Your task to perform on an android device: toggle notifications settings in the gmail app Image 0: 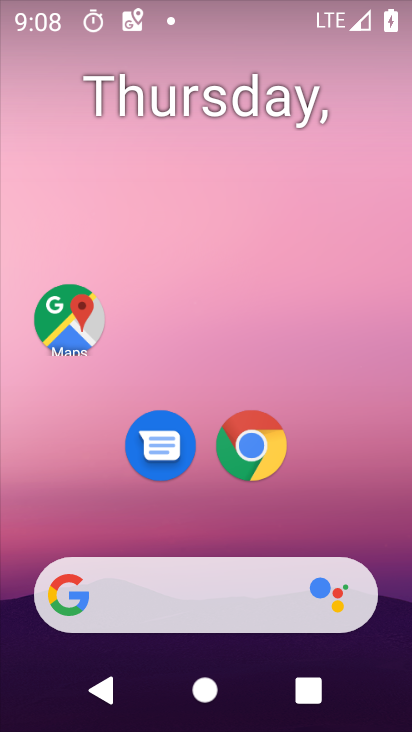
Step 0: drag from (226, 466) to (266, 227)
Your task to perform on an android device: toggle notifications settings in the gmail app Image 1: 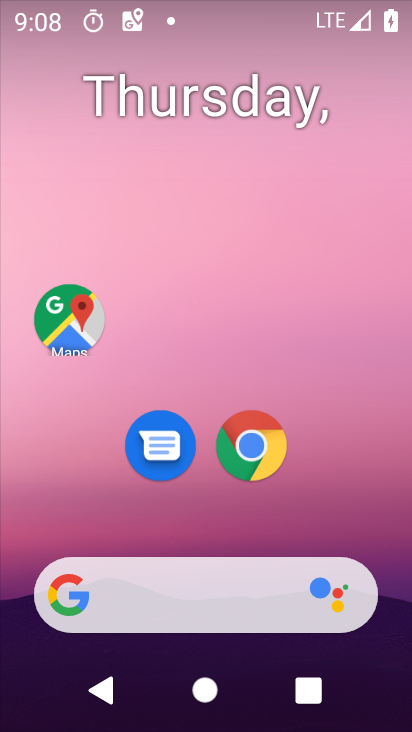
Step 1: drag from (214, 555) to (248, 175)
Your task to perform on an android device: toggle notifications settings in the gmail app Image 2: 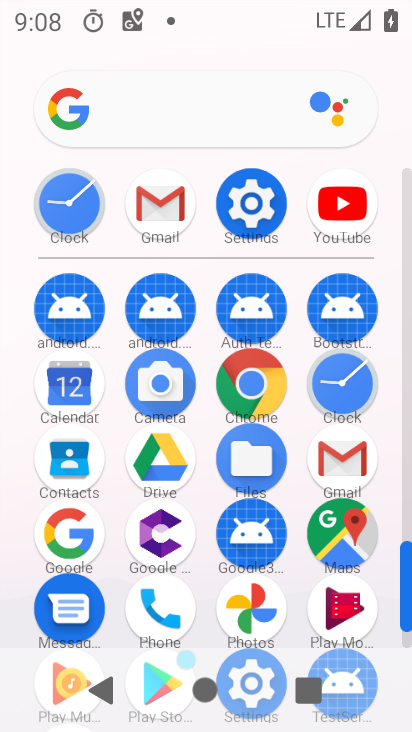
Step 2: click (339, 466)
Your task to perform on an android device: toggle notifications settings in the gmail app Image 3: 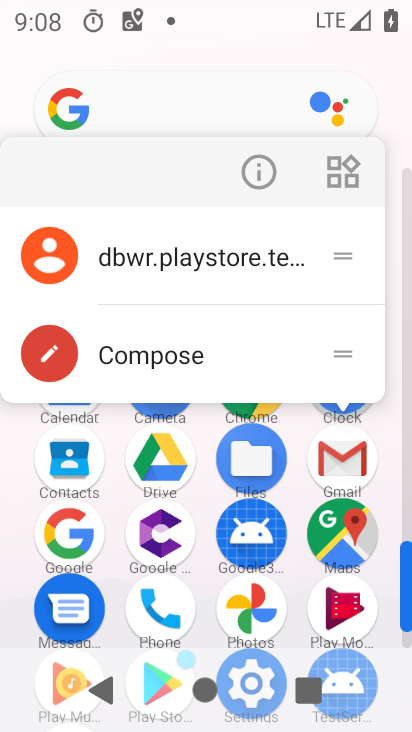
Step 3: click (259, 183)
Your task to perform on an android device: toggle notifications settings in the gmail app Image 4: 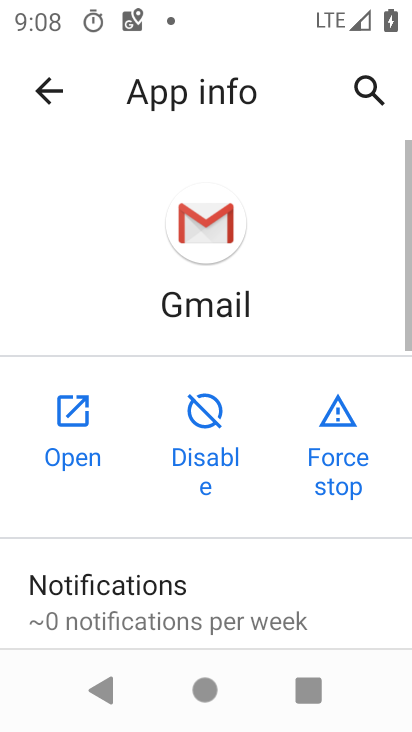
Step 4: click (77, 417)
Your task to perform on an android device: toggle notifications settings in the gmail app Image 5: 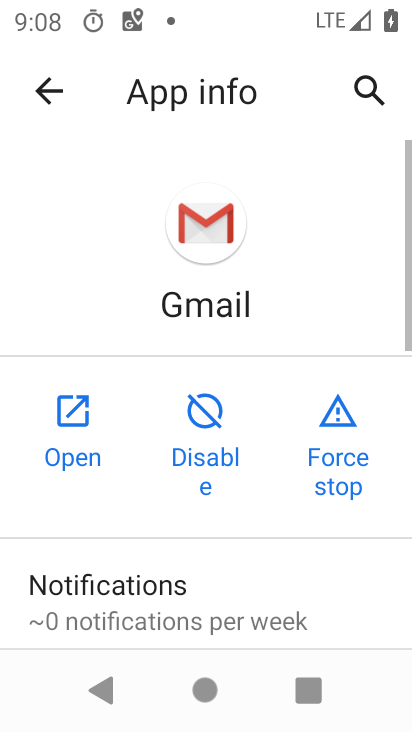
Step 5: click (77, 417)
Your task to perform on an android device: toggle notifications settings in the gmail app Image 6: 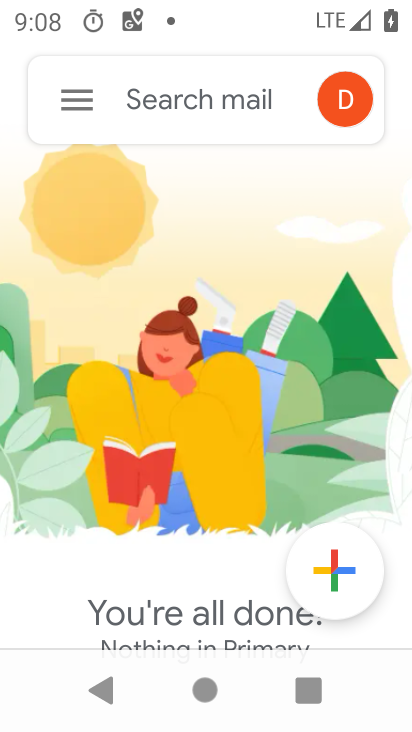
Step 6: click (86, 114)
Your task to perform on an android device: toggle notifications settings in the gmail app Image 7: 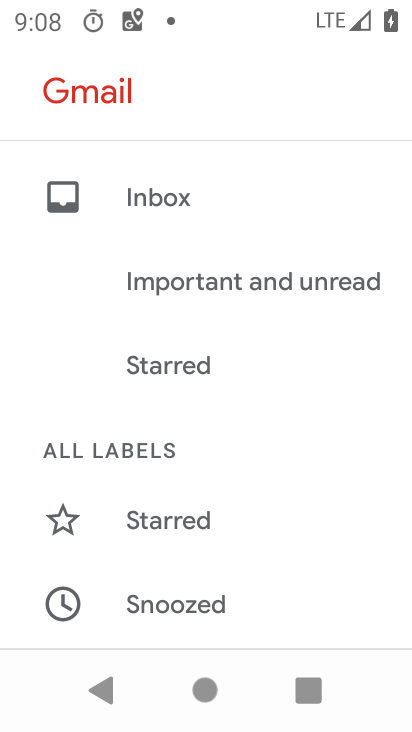
Step 7: drag from (252, 609) to (239, 234)
Your task to perform on an android device: toggle notifications settings in the gmail app Image 8: 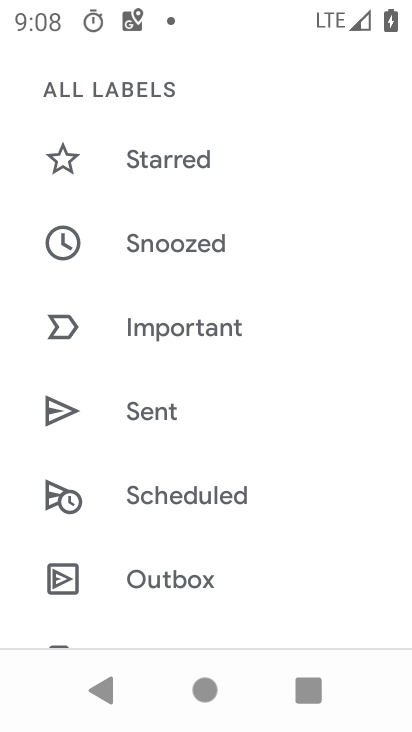
Step 8: drag from (255, 596) to (325, 207)
Your task to perform on an android device: toggle notifications settings in the gmail app Image 9: 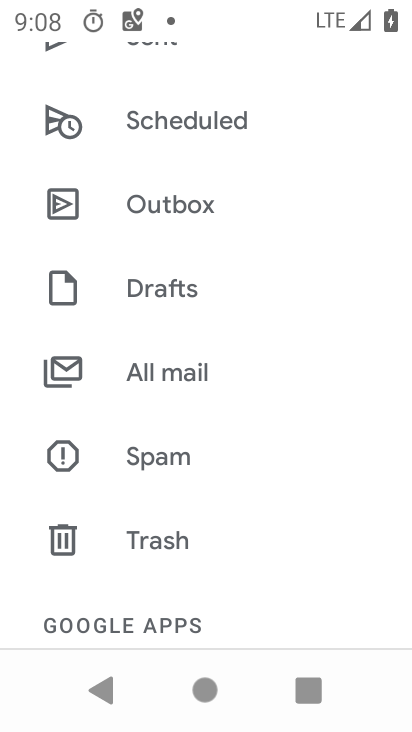
Step 9: drag from (190, 558) to (291, 86)
Your task to perform on an android device: toggle notifications settings in the gmail app Image 10: 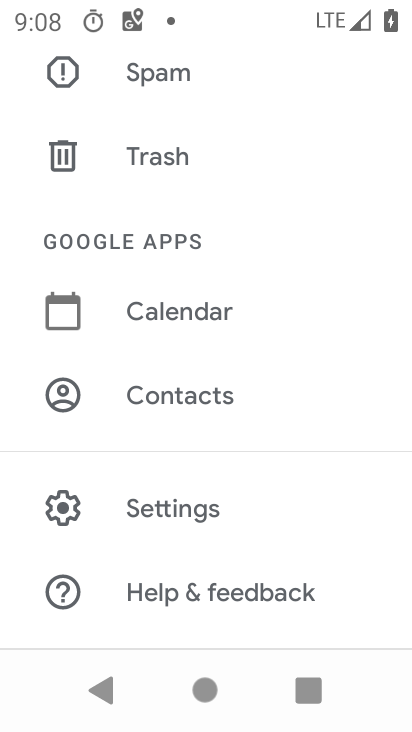
Step 10: click (175, 511)
Your task to perform on an android device: toggle notifications settings in the gmail app Image 11: 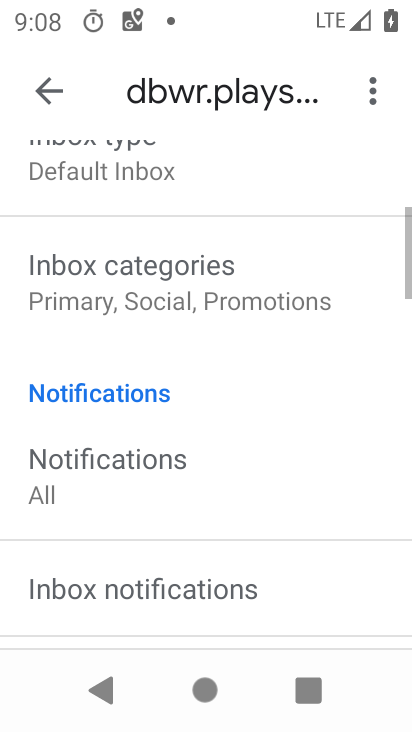
Step 11: drag from (278, 612) to (383, 129)
Your task to perform on an android device: toggle notifications settings in the gmail app Image 12: 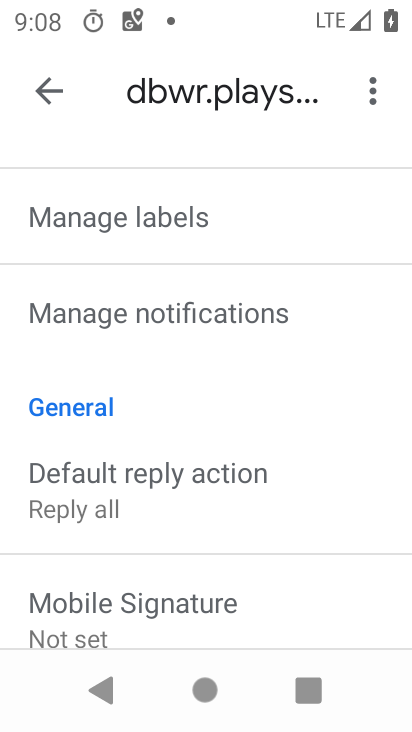
Step 12: drag from (194, 497) to (325, 124)
Your task to perform on an android device: toggle notifications settings in the gmail app Image 13: 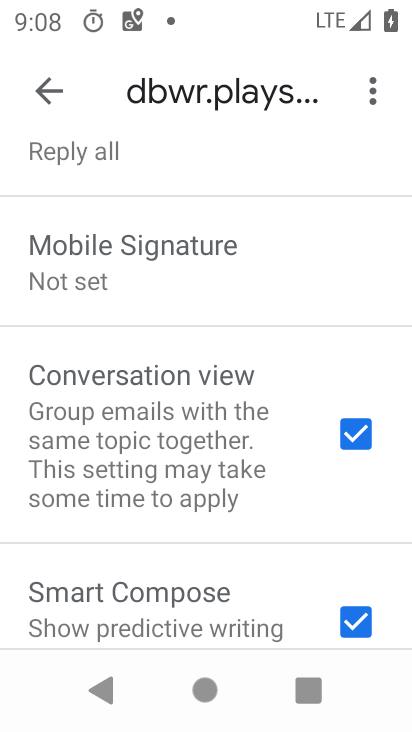
Step 13: drag from (180, 513) to (317, 213)
Your task to perform on an android device: toggle notifications settings in the gmail app Image 14: 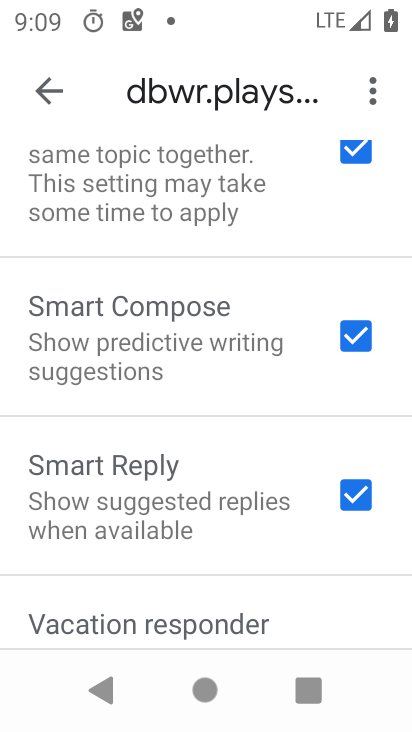
Step 14: drag from (230, 585) to (319, 132)
Your task to perform on an android device: toggle notifications settings in the gmail app Image 15: 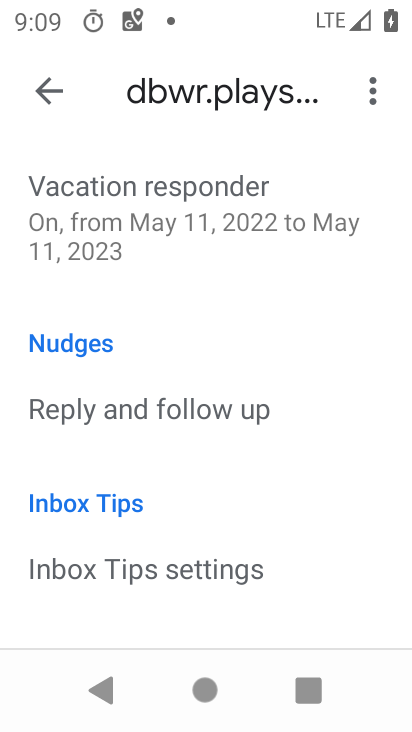
Step 15: drag from (262, 192) to (266, 703)
Your task to perform on an android device: toggle notifications settings in the gmail app Image 16: 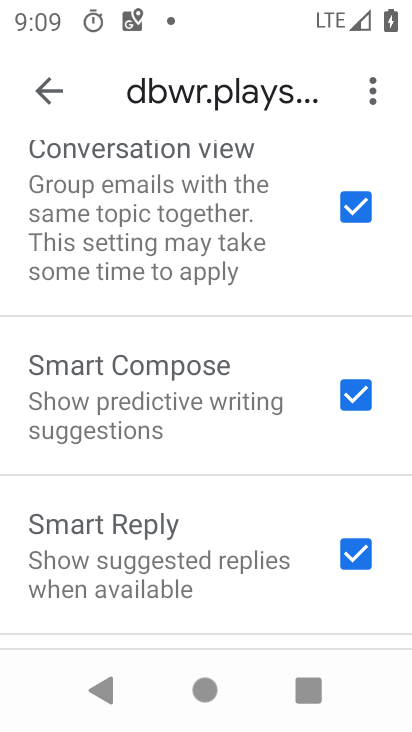
Step 16: drag from (225, 219) to (276, 630)
Your task to perform on an android device: toggle notifications settings in the gmail app Image 17: 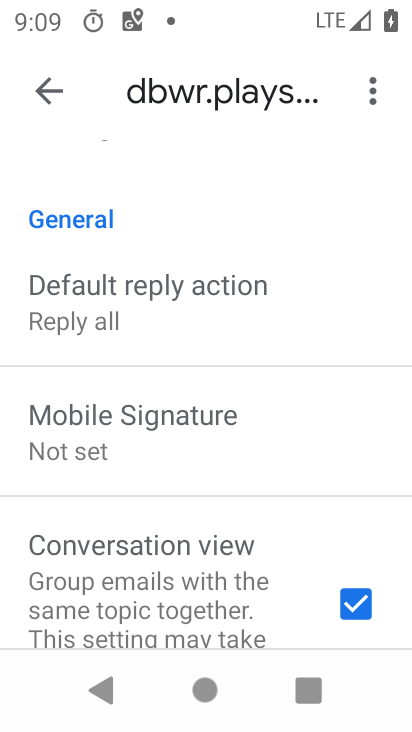
Step 17: drag from (235, 250) to (269, 587)
Your task to perform on an android device: toggle notifications settings in the gmail app Image 18: 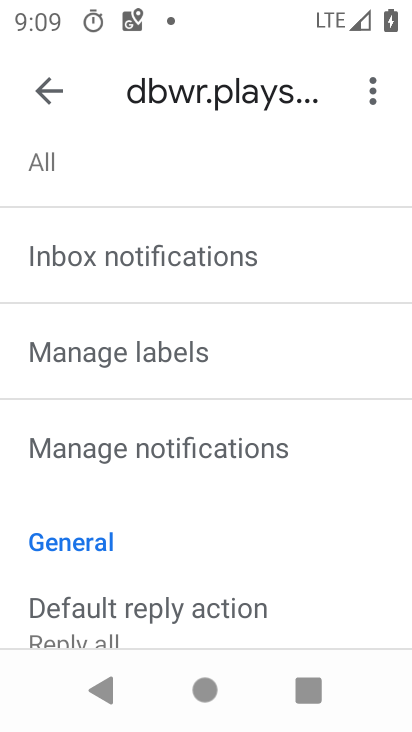
Step 18: click (182, 436)
Your task to perform on an android device: toggle notifications settings in the gmail app Image 19: 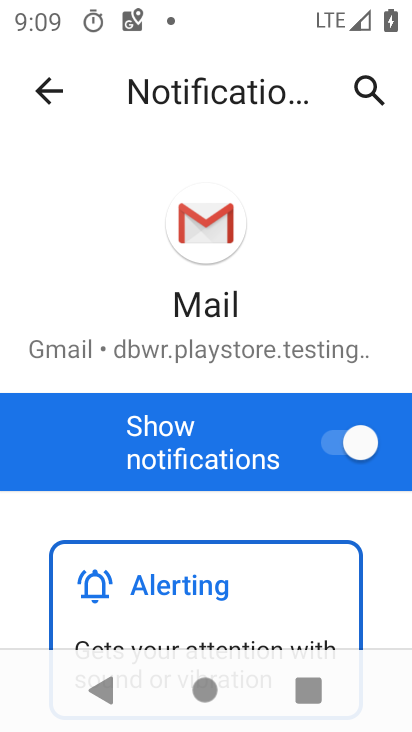
Step 19: drag from (238, 602) to (330, 195)
Your task to perform on an android device: toggle notifications settings in the gmail app Image 20: 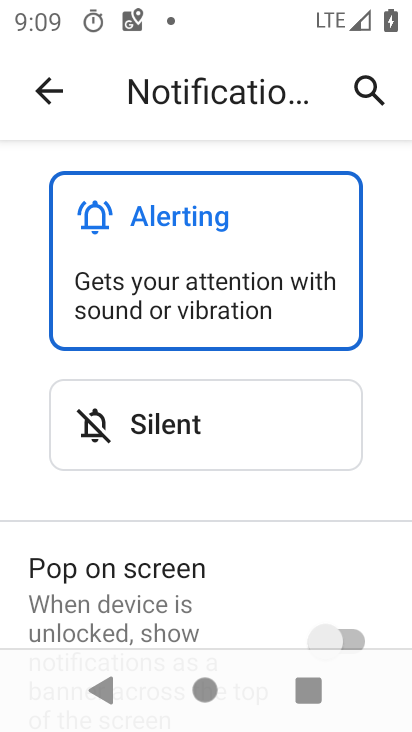
Step 20: drag from (283, 317) to (275, 636)
Your task to perform on an android device: toggle notifications settings in the gmail app Image 21: 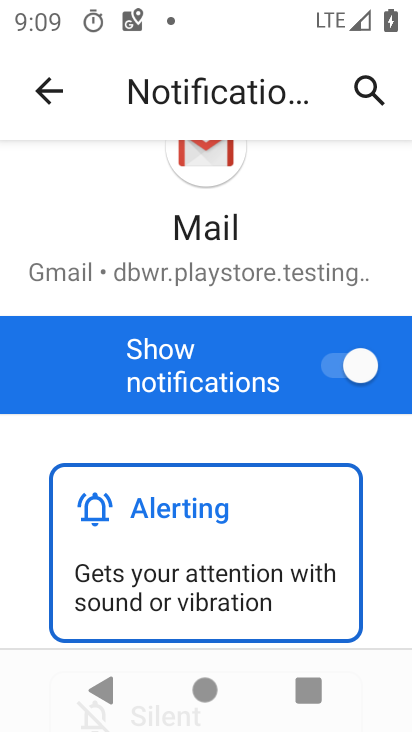
Step 21: drag from (275, 600) to (327, 274)
Your task to perform on an android device: toggle notifications settings in the gmail app Image 22: 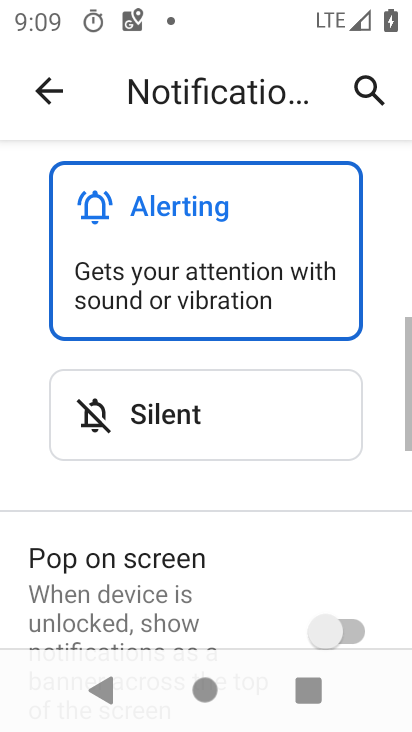
Step 22: drag from (330, 260) to (327, 653)
Your task to perform on an android device: toggle notifications settings in the gmail app Image 23: 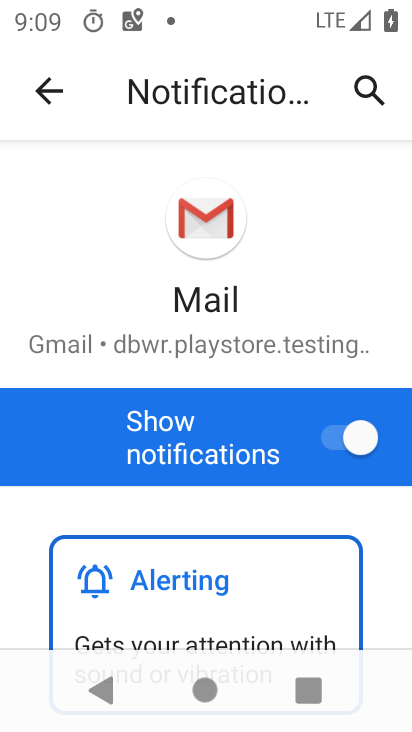
Step 23: drag from (233, 597) to (300, 306)
Your task to perform on an android device: toggle notifications settings in the gmail app Image 24: 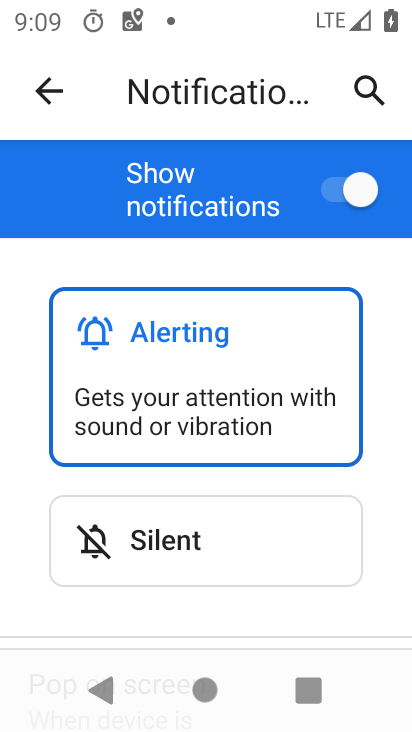
Step 24: drag from (301, 274) to (288, 563)
Your task to perform on an android device: toggle notifications settings in the gmail app Image 25: 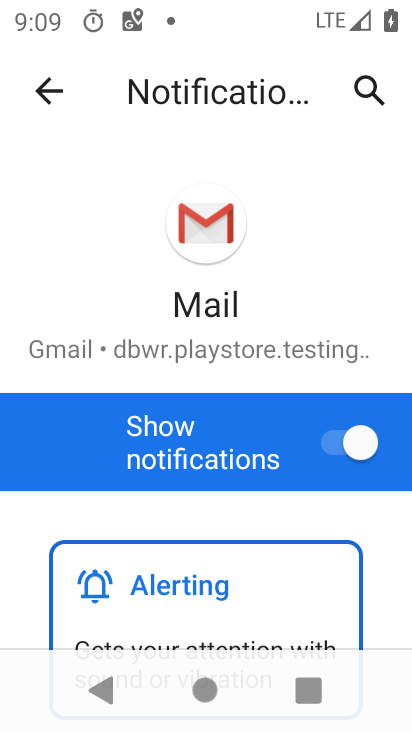
Step 25: click (334, 439)
Your task to perform on an android device: toggle notifications settings in the gmail app Image 26: 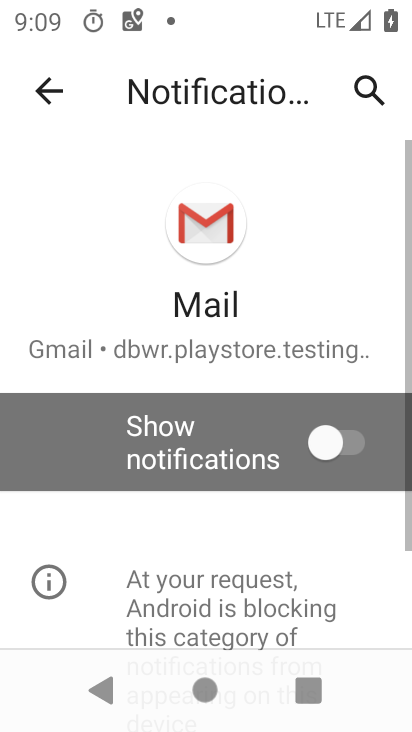
Step 26: task complete